Your task to perform on an android device: Go to CNN.com Image 0: 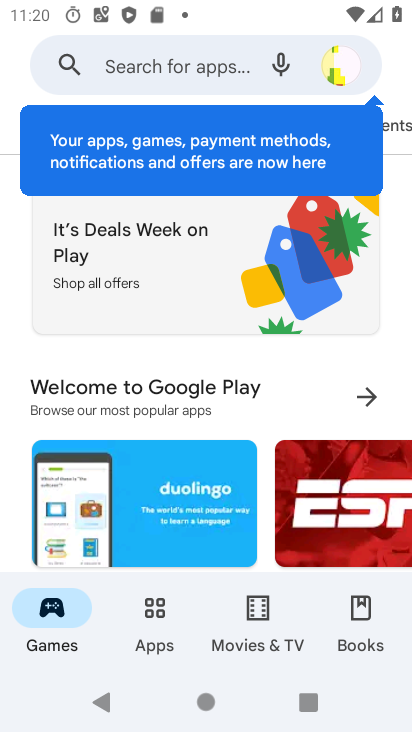
Step 0: press home button
Your task to perform on an android device: Go to CNN.com Image 1: 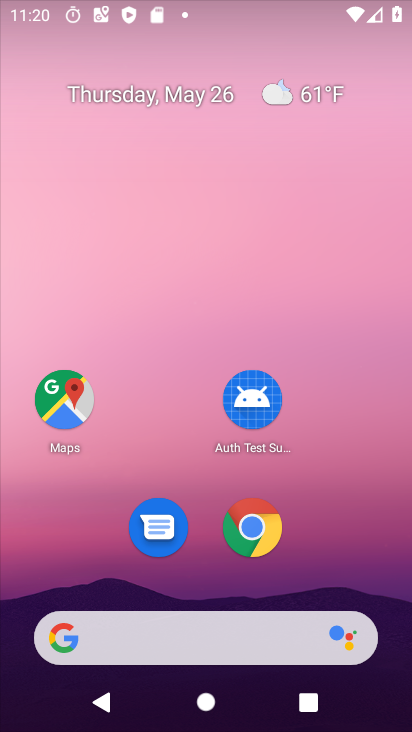
Step 1: drag from (357, 523) to (377, 7)
Your task to perform on an android device: Go to CNN.com Image 2: 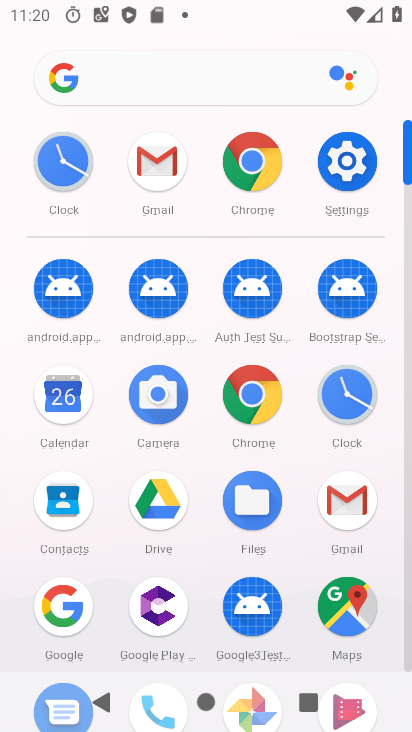
Step 2: click (257, 174)
Your task to perform on an android device: Go to CNN.com Image 3: 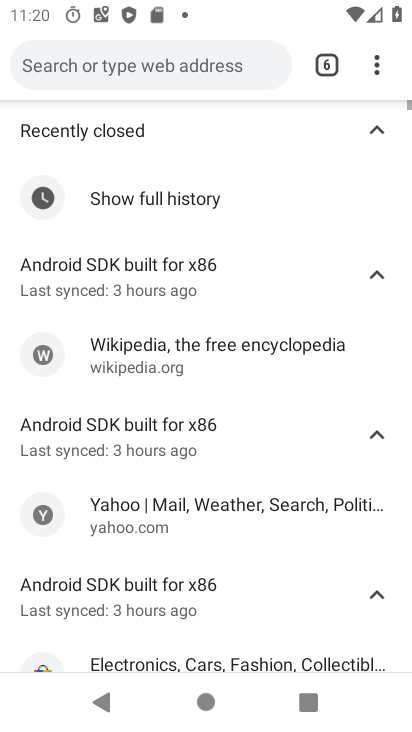
Step 3: click (161, 75)
Your task to perform on an android device: Go to CNN.com Image 4: 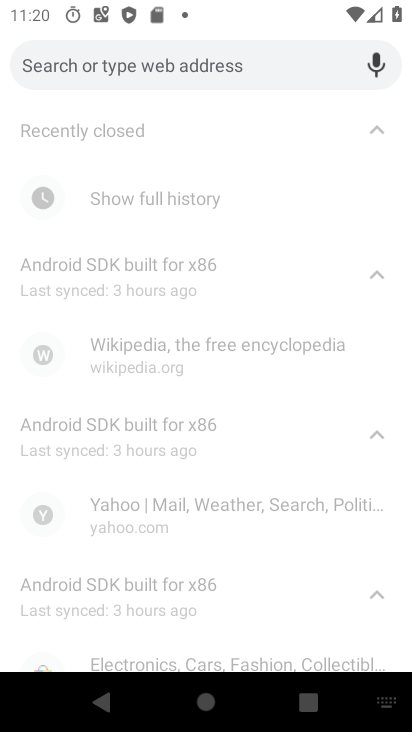
Step 4: type "cnn"
Your task to perform on an android device: Go to CNN.com Image 5: 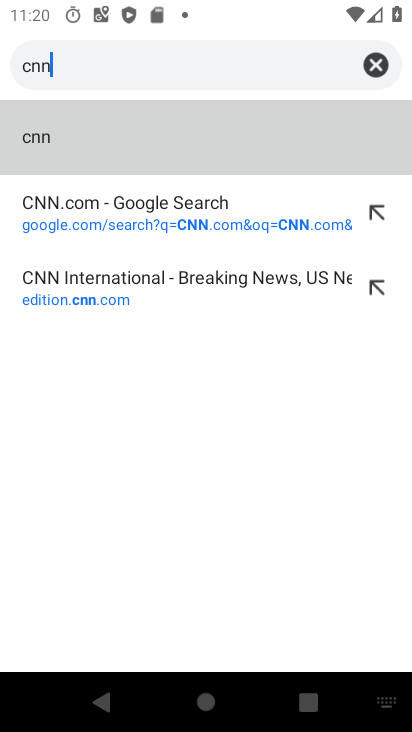
Step 5: click (92, 221)
Your task to perform on an android device: Go to CNN.com Image 6: 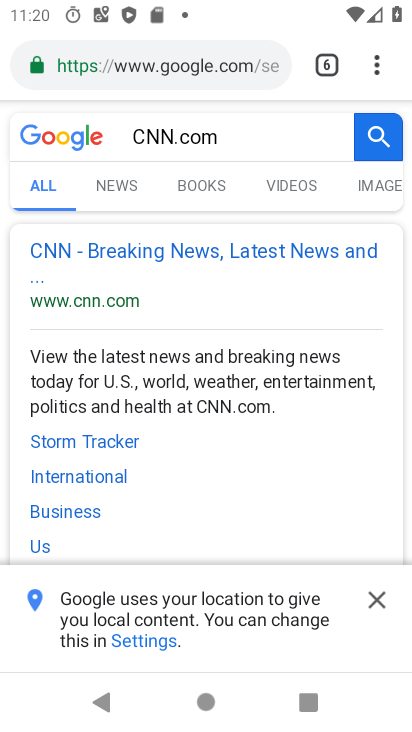
Step 6: click (92, 254)
Your task to perform on an android device: Go to CNN.com Image 7: 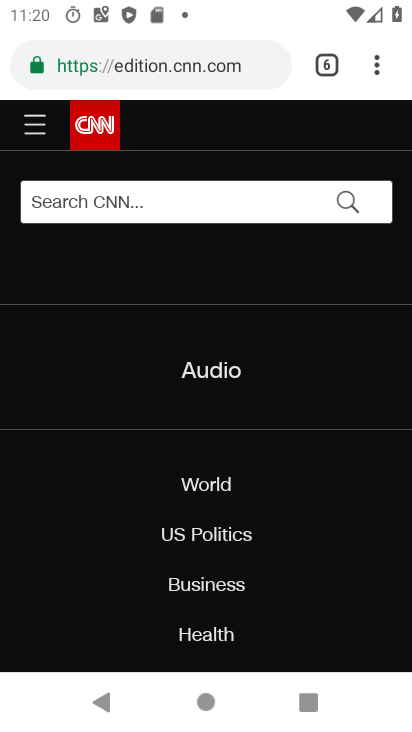
Step 7: task complete